Your task to perform on an android device: Open maps Image 0: 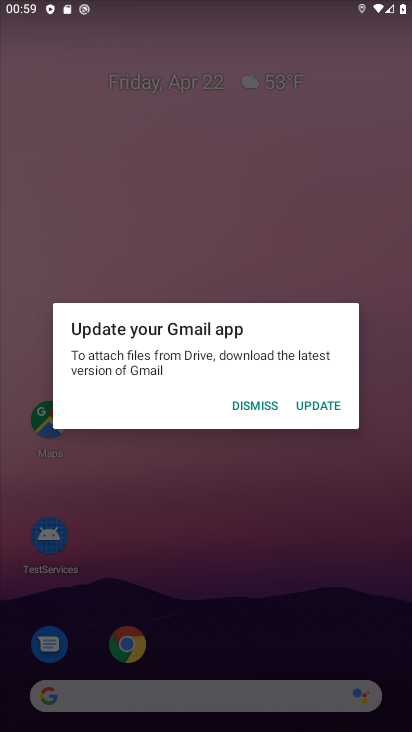
Step 0: press home button
Your task to perform on an android device: Open maps Image 1: 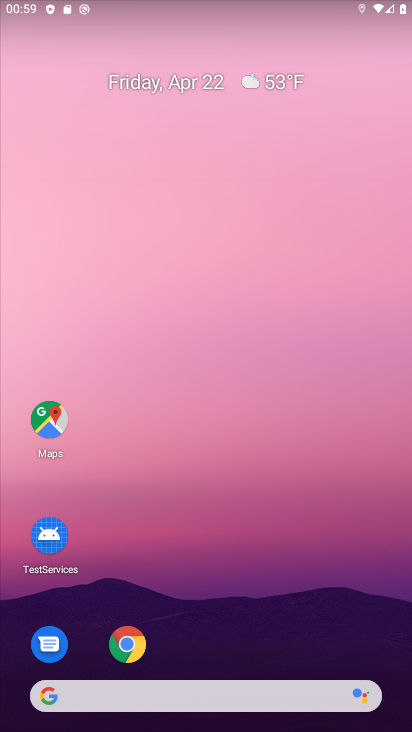
Step 1: drag from (285, 629) to (232, 128)
Your task to perform on an android device: Open maps Image 2: 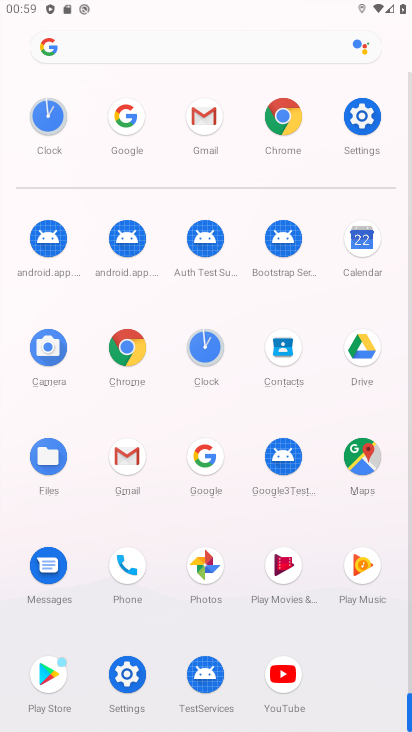
Step 2: click (363, 453)
Your task to perform on an android device: Open maps Image 3: 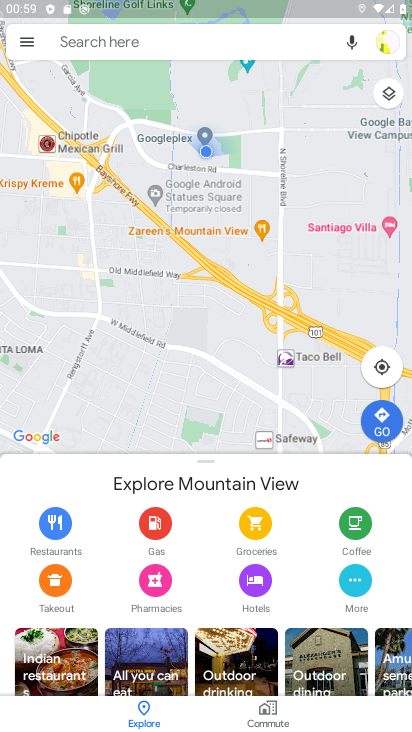
Step 3: task complete